Your task to perform on an android device: install app "Booking.com: Hotels and more" Image 0: 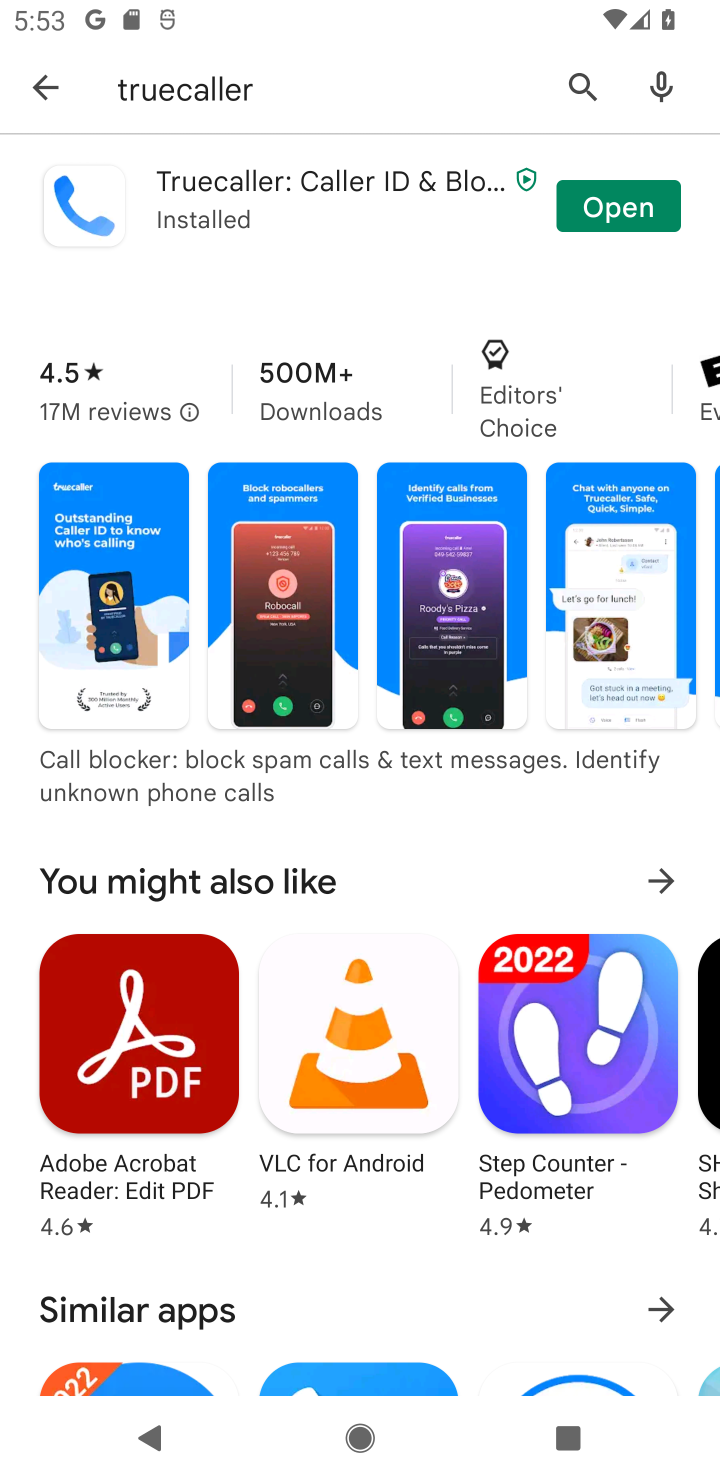
Step 0: click (40, 69)
Your task to perform on an android device: install app "Booking.com: Hotels and more" Image 1: 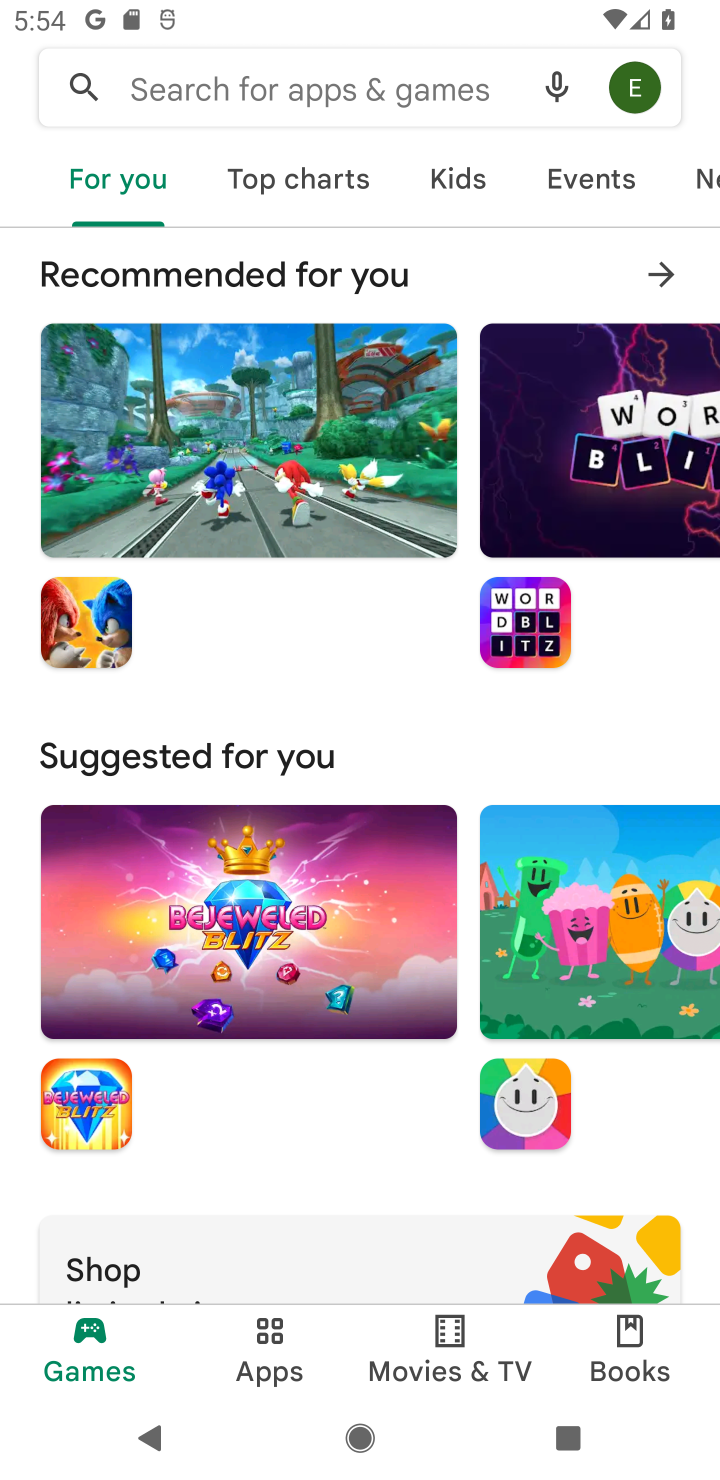
Step 1: click (281, 96)
Your task to perform on an android device: install app "Booking.com: Hotels and more" Image 2: 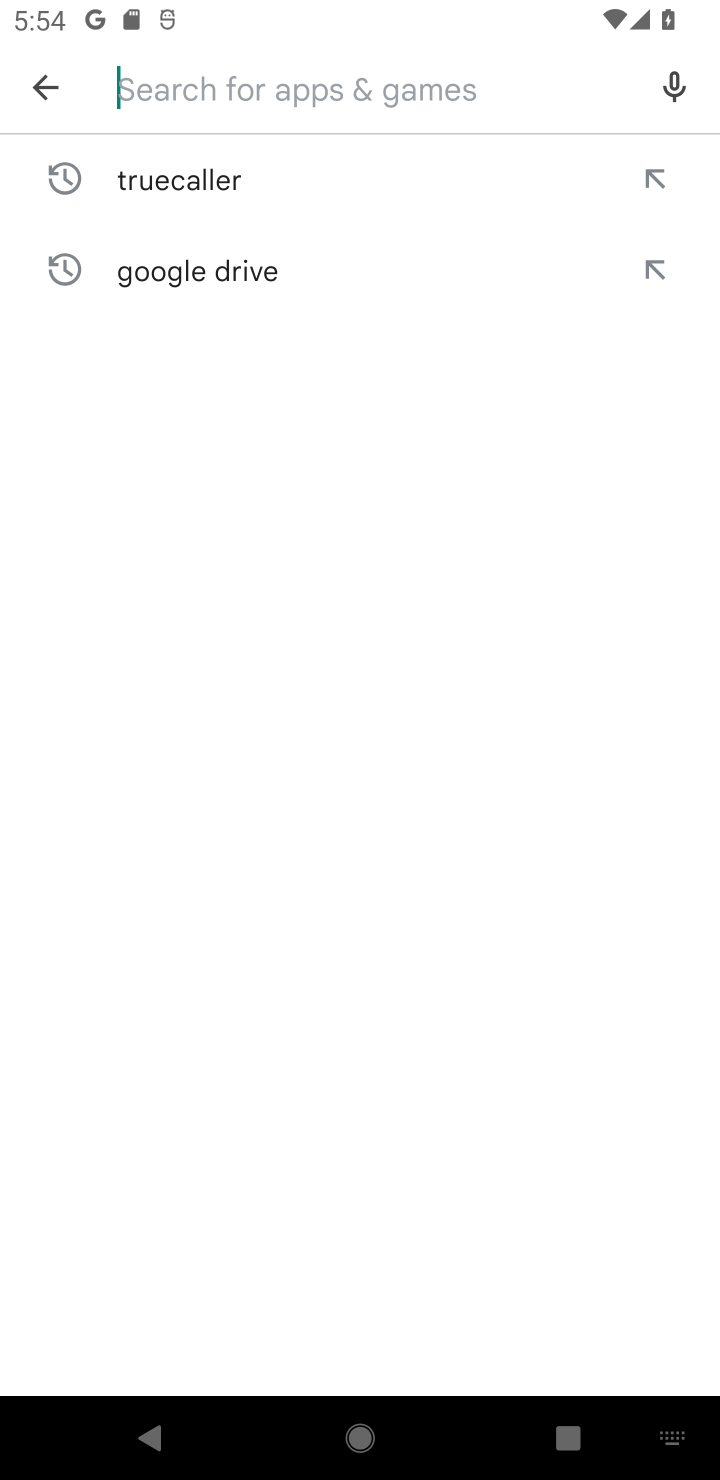
Step 2: type "Booking.com: Hotels and more"
Your task to perform on an android device: install app "Booking.com: Hotels and more" Image 3: 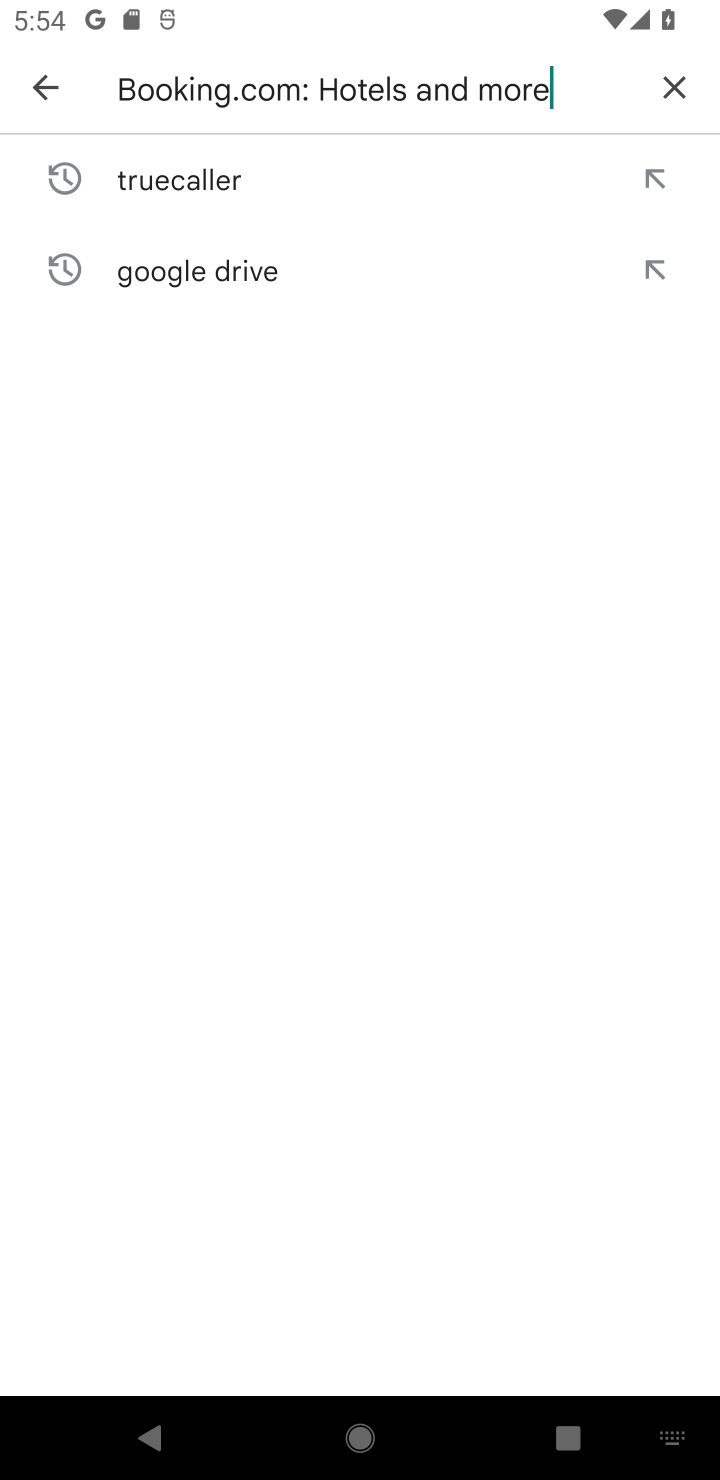
Step 3: type ""
Your task to perform on an android device: install app "Booking.com: Hotels and more" Image 4: 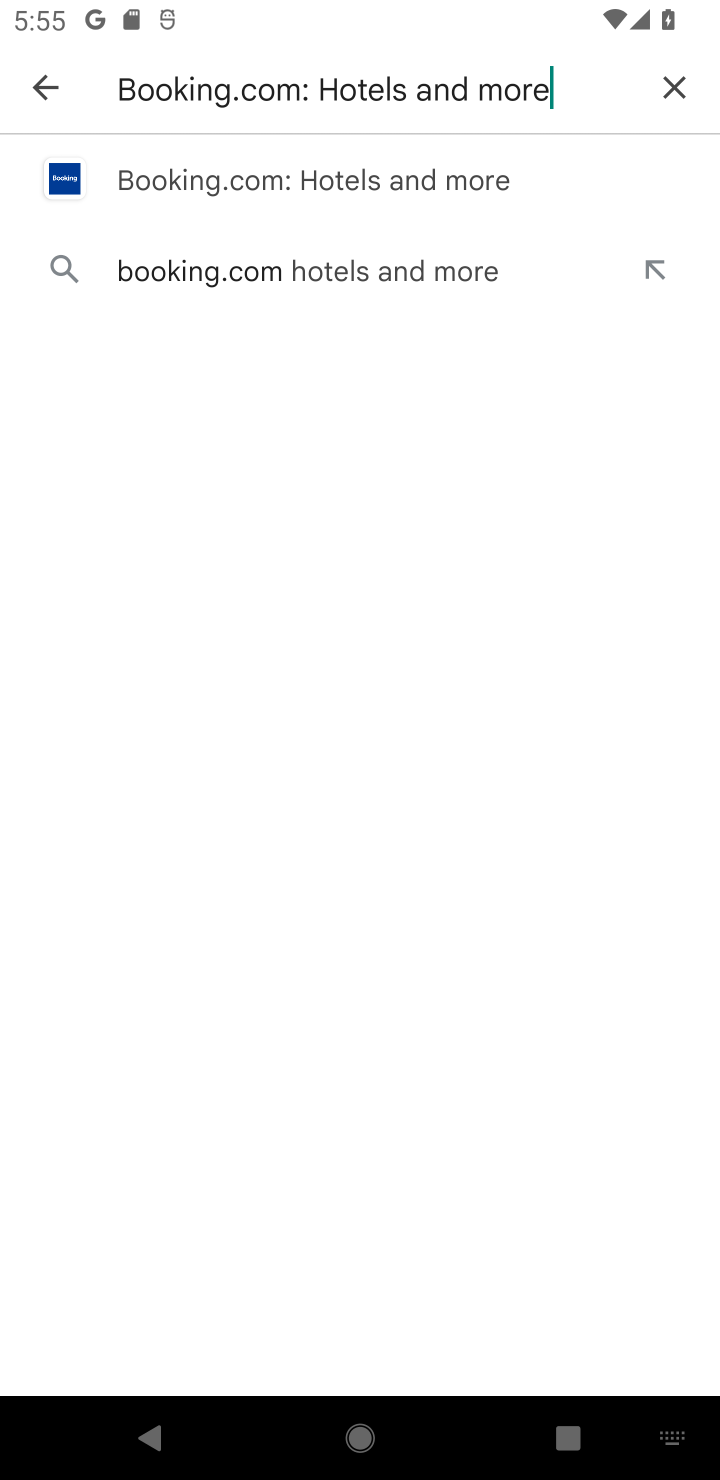
Step 4: click (83, 159)
Your task to perform on an android device: install app "Booking.com: Hotels and more" Image 5: 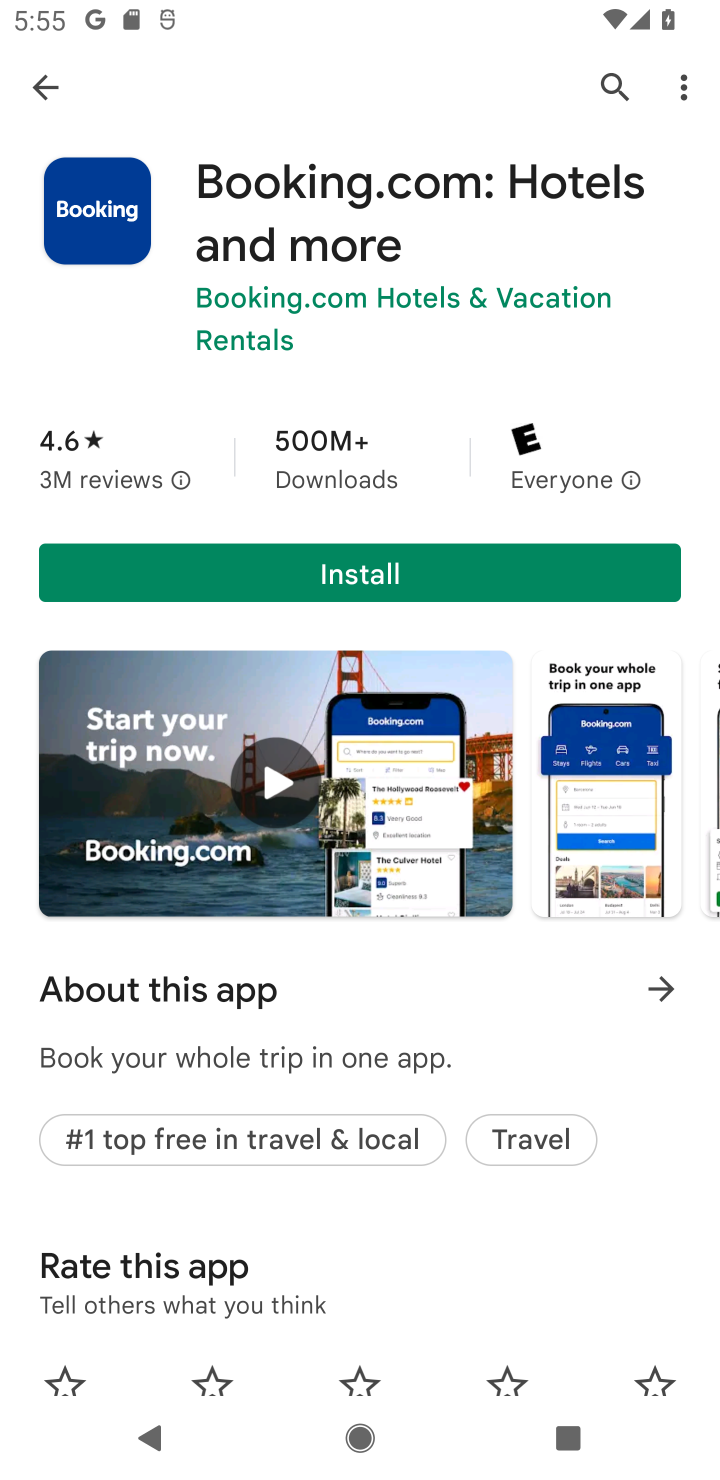
Step 5: click (295, 585)
Your task to perform on an android device: install app "Booking.com: Hotels and more" Image 6: 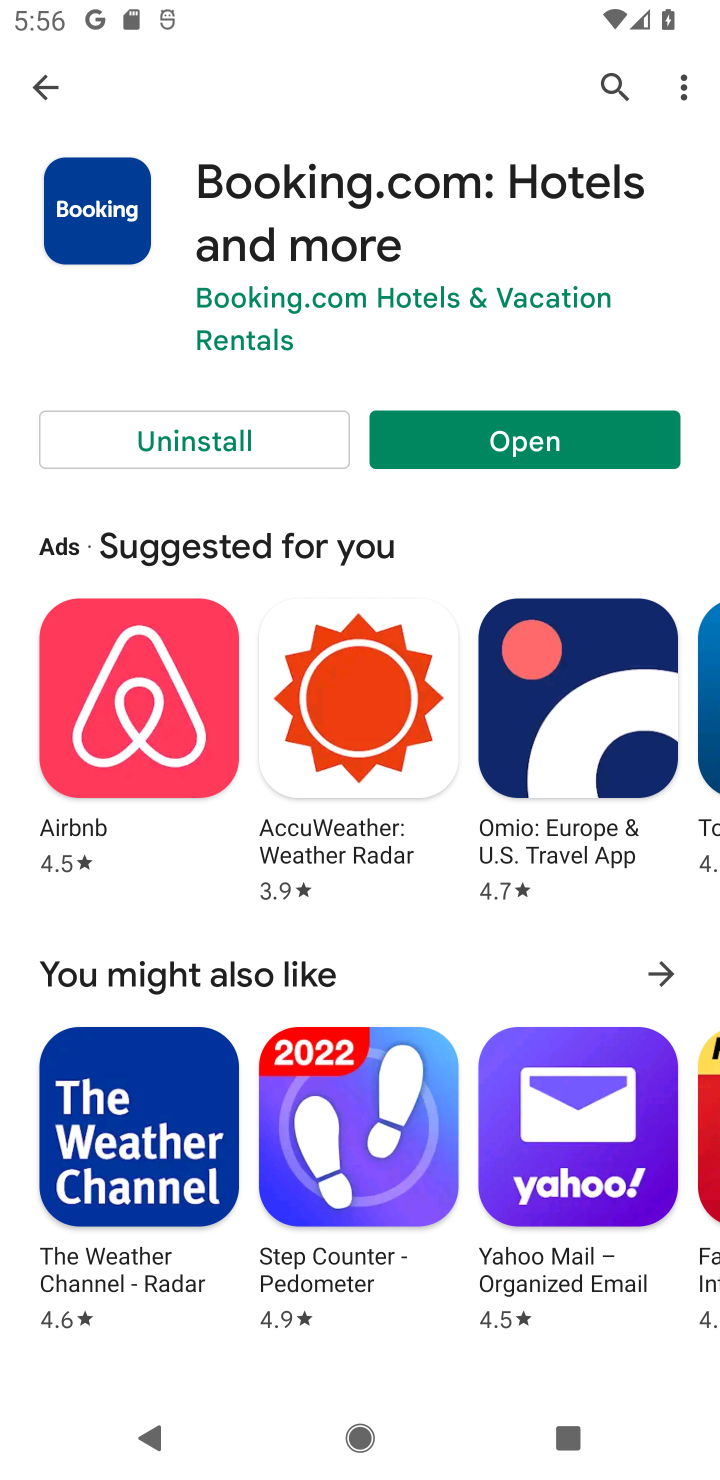
Step 6: click (430, 442)
Your task to perform on an android device: install app "Booking.com: Hotels and more" Image 7: 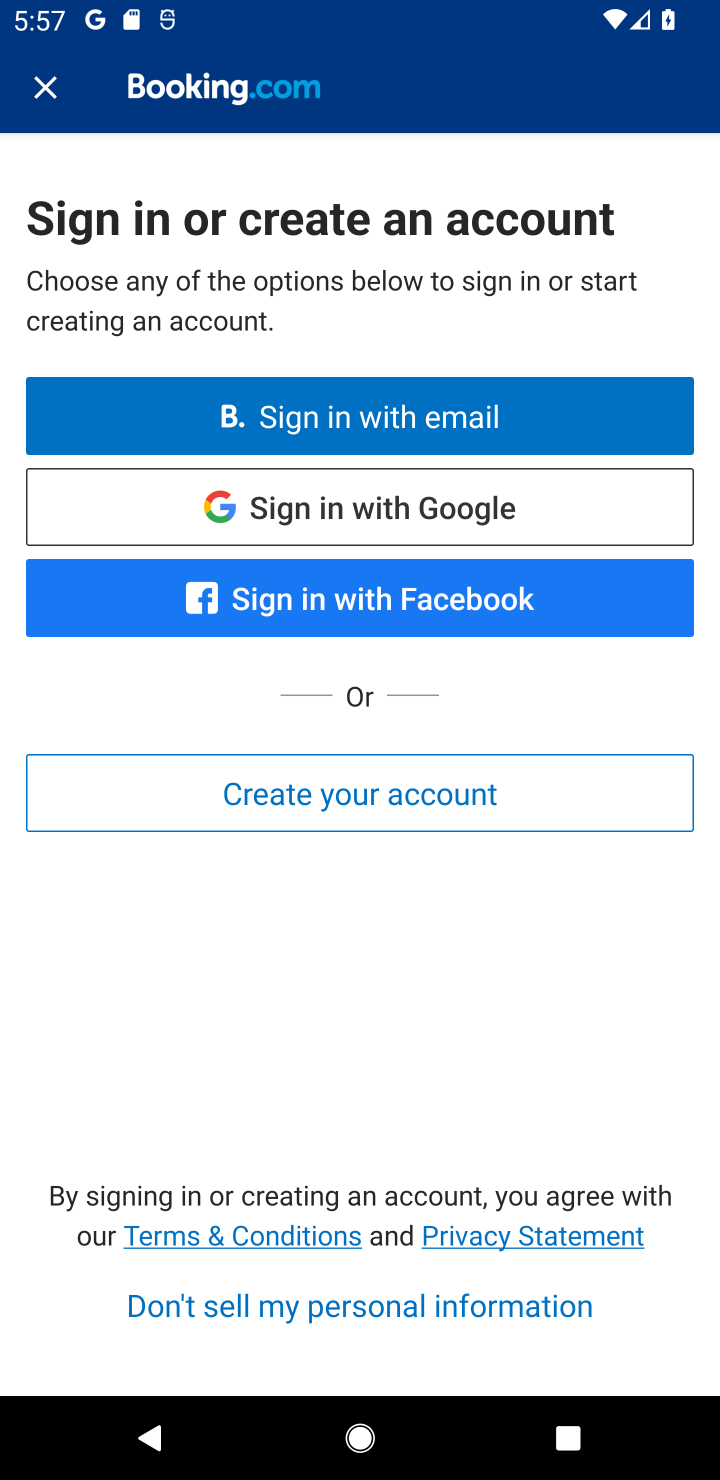
Step 7: click (13, 60)
Your task to perform on an android device: install app "Booking.com: Hotels and more" Image 8: 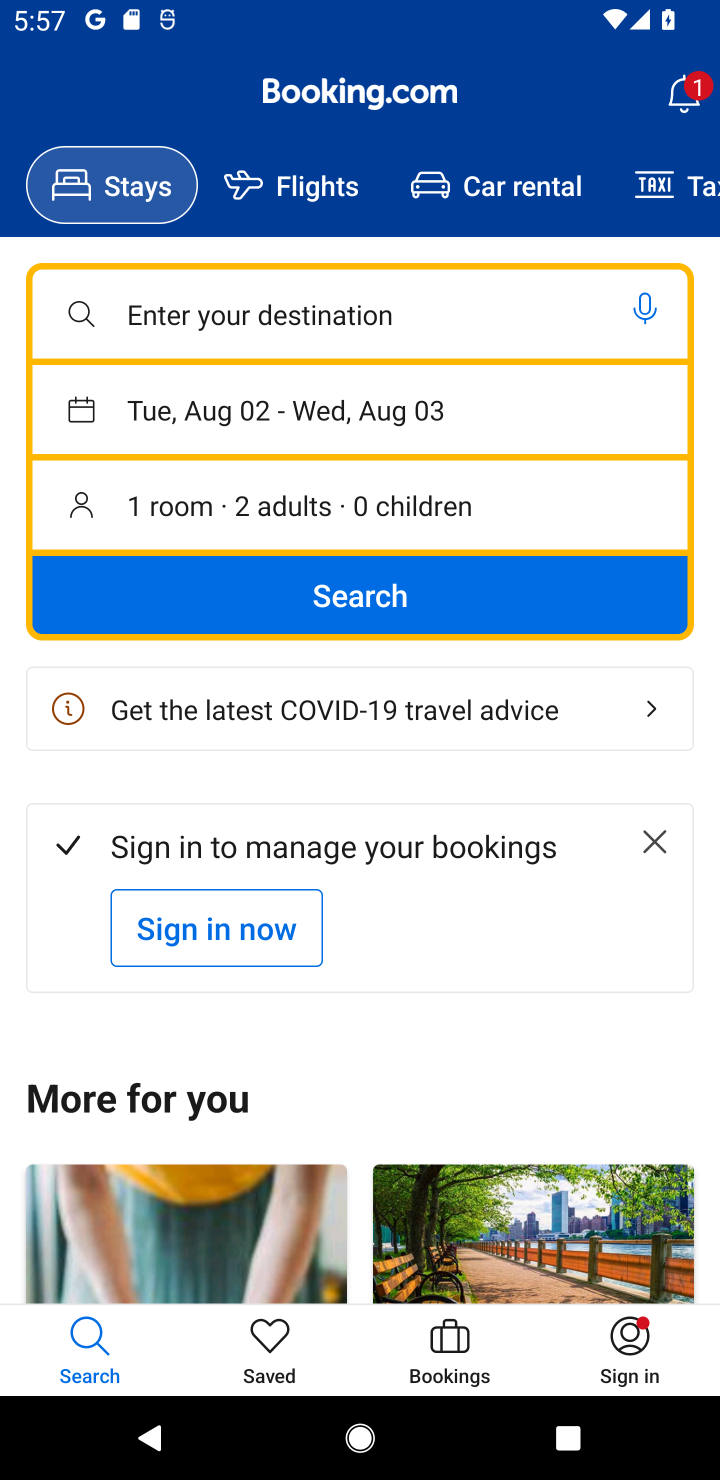
Step 8: task complete